Your task to perform on an android device: Search for sushi restaurants on Maps Image 0: 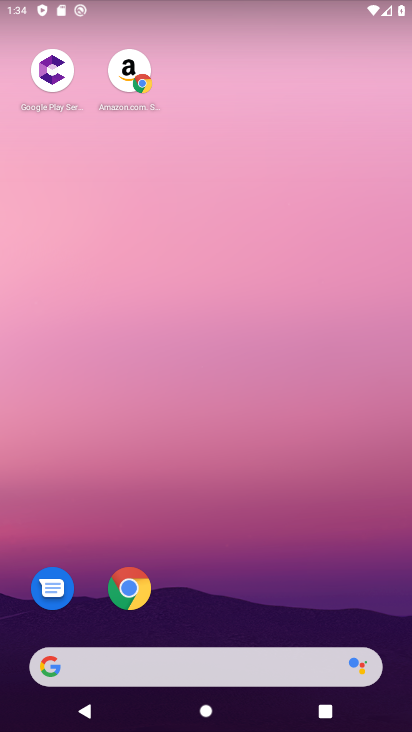
Step 0: drag from (183, 661) to (245, 70)
Your task to perform on an android device: Search for sushi restaurants on Maps Image 1: 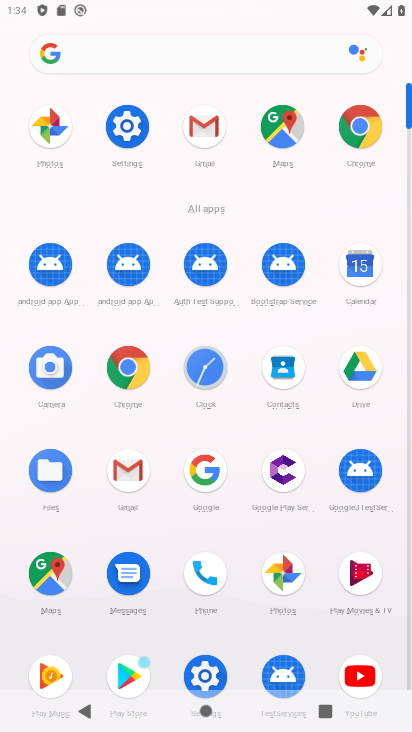
Step 1: click (280, 128)
Your task to perform on an android device: Search for sushi restaurants on Maps Image 2: 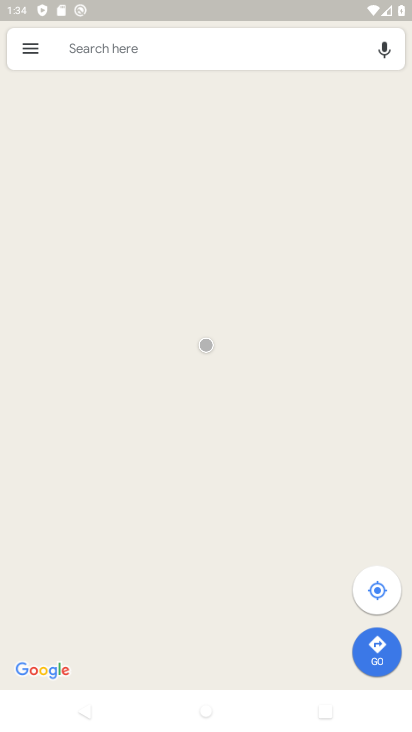
Step 2: click (196, 53)
Your task to perform on an android device: Search for sushi restaurants on Maps Image 3: 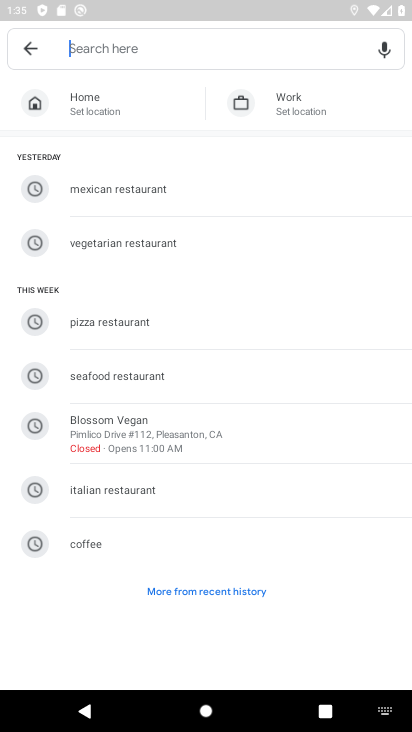
Step 3: type "sushi restaurants"
Your task to perform on an android device: Search for sushi restaurants on Maps Image 4: 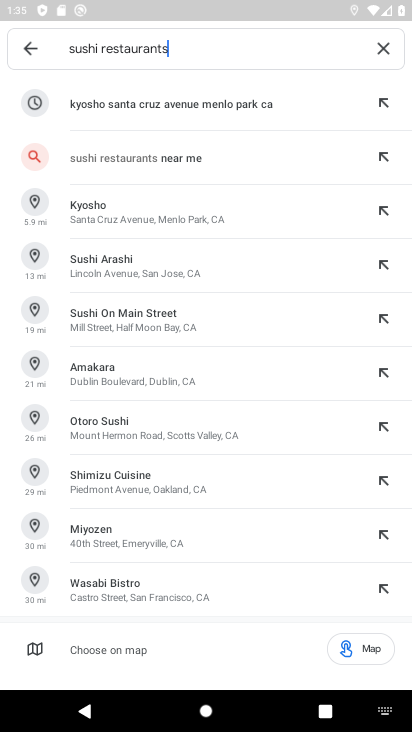
Step 4: click (125, 152)
Your task to perform on an android device: Search for sushi restaurants on Maps Image 5: 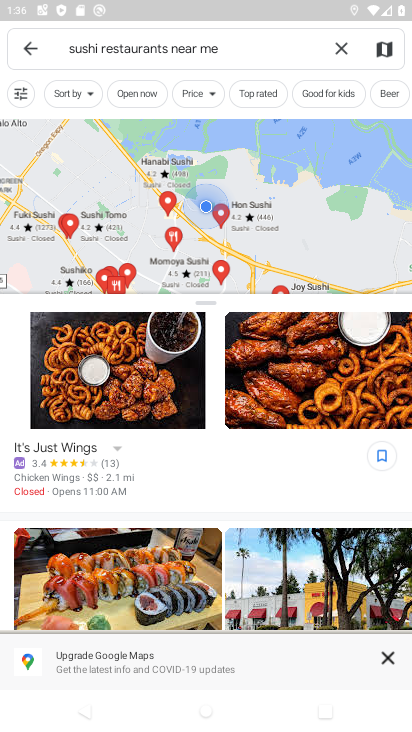
Step 5: task complete